Your task to perform on an android device: check data usage Image 0: 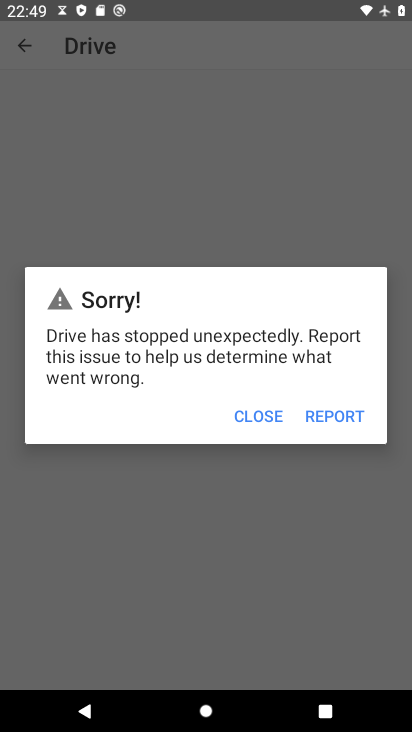
Step 0: press home button
Your task to perform on an android device: check data usage Image 1: 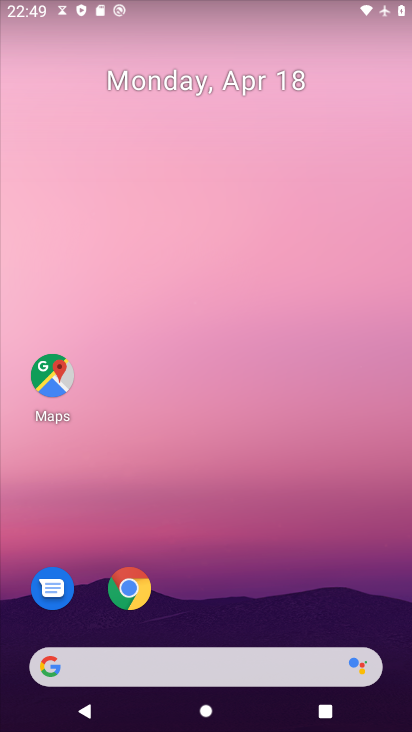
Step 1: drag from (270, 547) to (107, 10)
Your task to perform on an android device: check data usage Image 2: 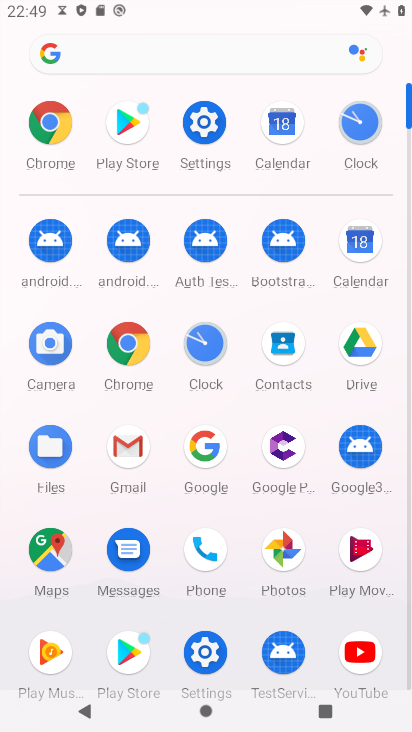
Step 2: click (202, 119)
Your task to perform on an android device: check data usage Image 3: 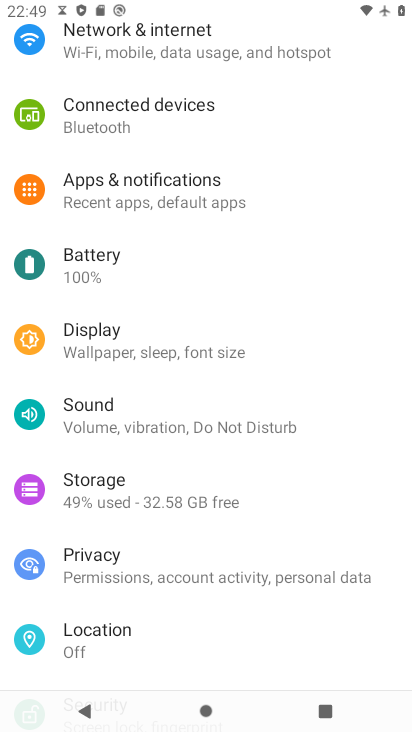
Step 3: drag from (273, 135) to (284, 530)
Your task to perform on an android device: check data usage Image 4: 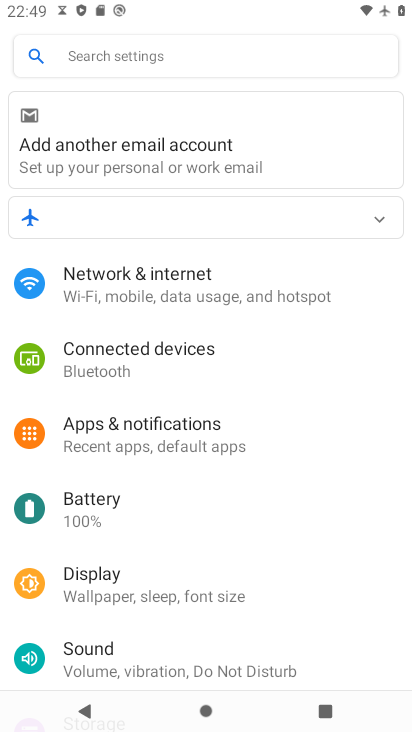
Step 4: click (198, 285)
Your task to perform on an android device: check data usage Image 5: 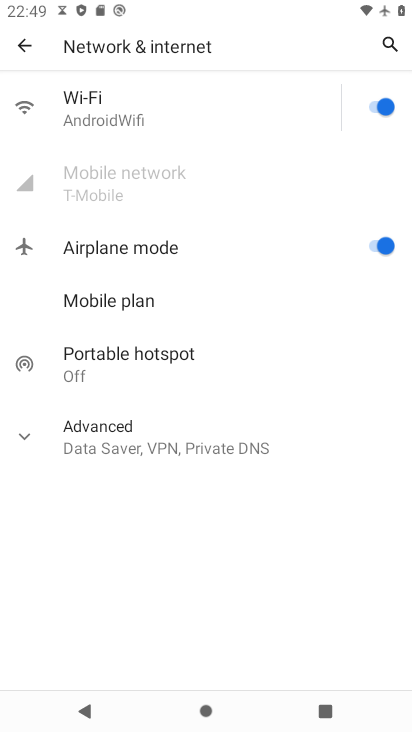
Step 5: click (56, 437)
Your task to perform on an android device: check data usage Image 6: 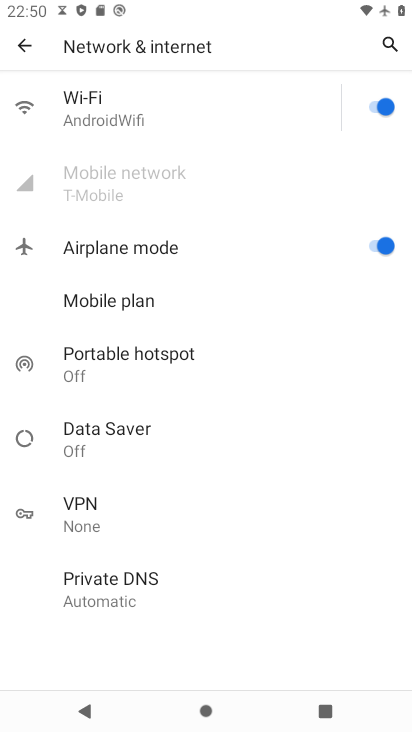
Step 6: task complete